Your task to perform on an android device: Open sound settings Image 0: 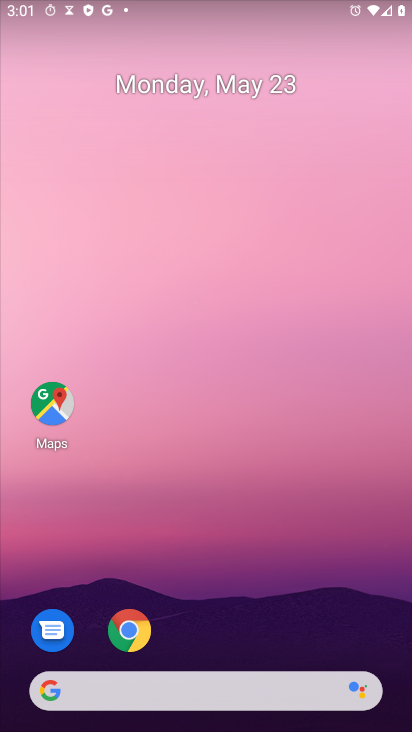
Step 0: drag from (225, 558) to (349, 92)
Your task to perform on an android device: Open sound settings Image 1: 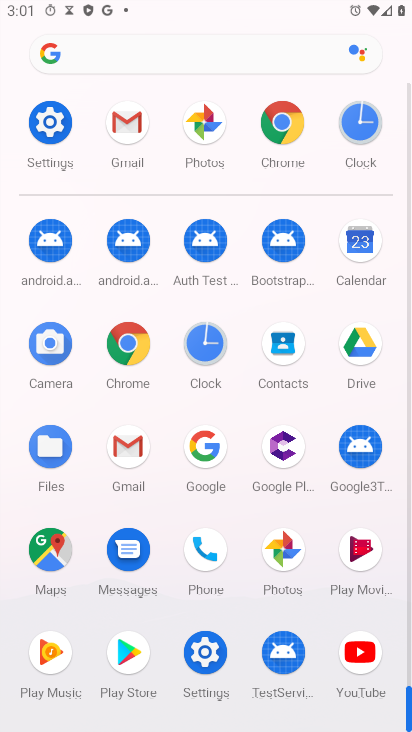
Step 1: click (41, 110)
Your task to perform on an android device: Open sound settings Image 2: 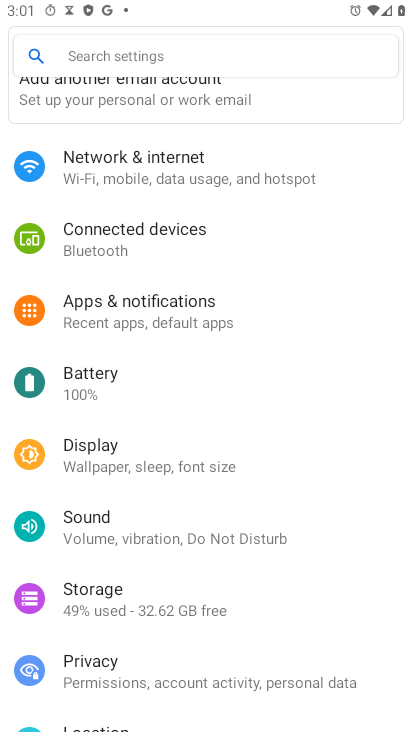
Step 2: click (108, 511)
Your task to perform on an android device: Open sound settings Image 3: 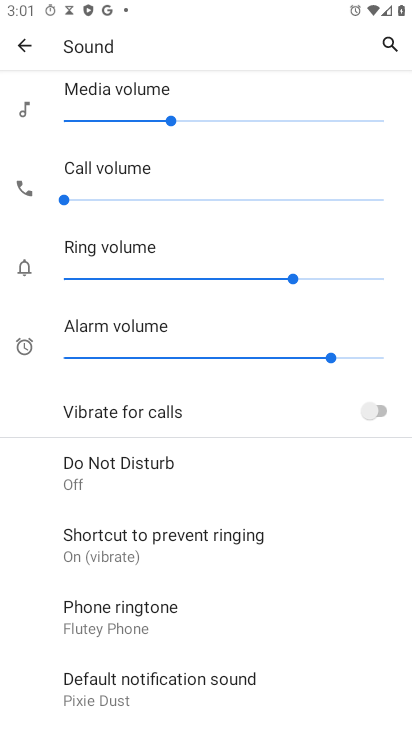
Step 3: task complete